Your task to perform on an android device: open the mobile data screen to see how much data has been used Image 0: 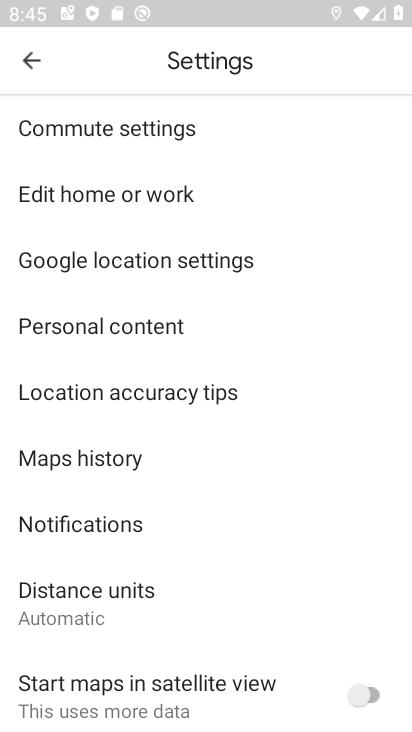
Step 0: press home button
Your task to perform on an android device: open the mobile data screen to see how much data has been used Image 1: 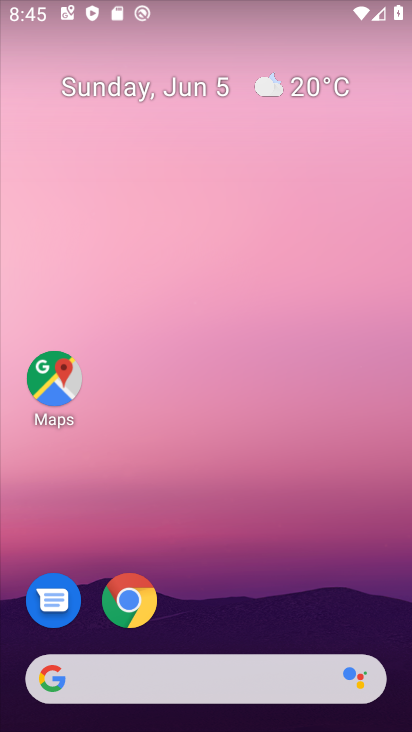
Step 1: drag from (264, 589) to (330, 22)
Your task to perform on an android device: open the mobile data screen to see how much data has been used Image 2: 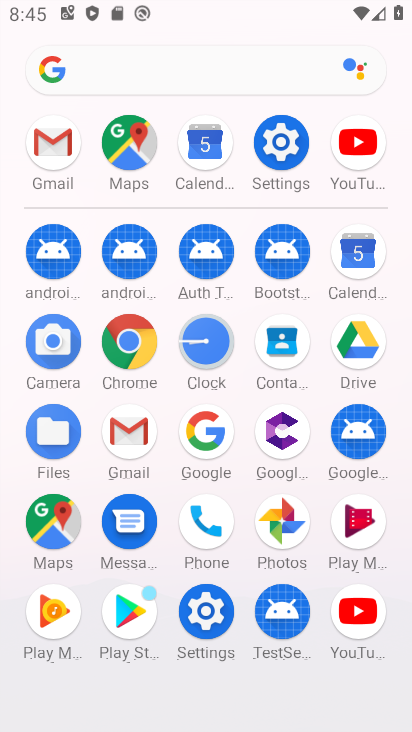
Step 2: click (298, 129)
Your task to perform on an android device: open the mobile data screen to see how much data has been used Image 3: 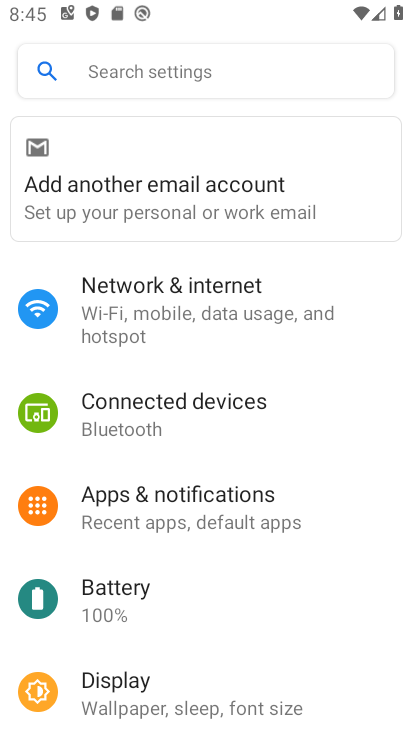
Step 3: click (229, 294)
Your task to perform on an android device: open the mobile data screen to see how much data has been used Image 4: 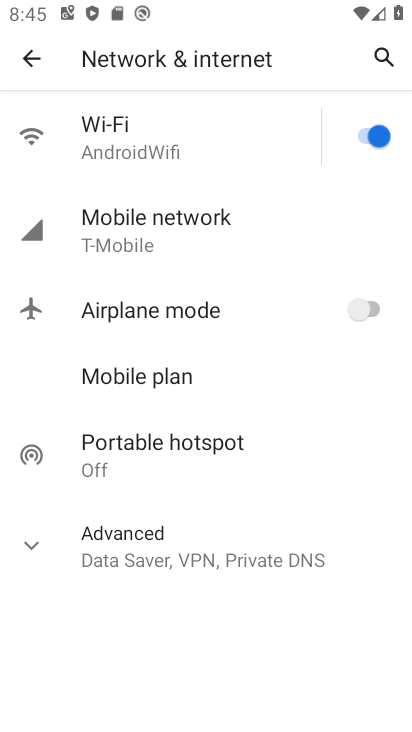
Step 4: click (234, 242)
Your task to perform on an android device: open the mobile data screen to see how much data has been used Image 5: 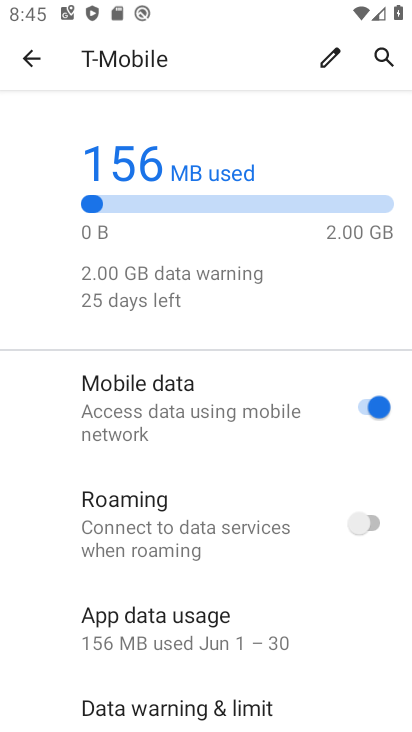
Step 5: task complete